Your task to perform on an android device: check android version Image 0: 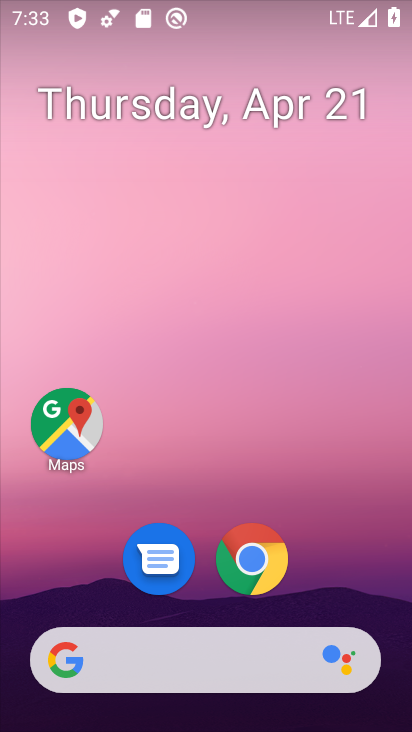
Step 0: drag from (337, 545) to (328, 229)
Your task to perform on an android device: check android version Image 1: 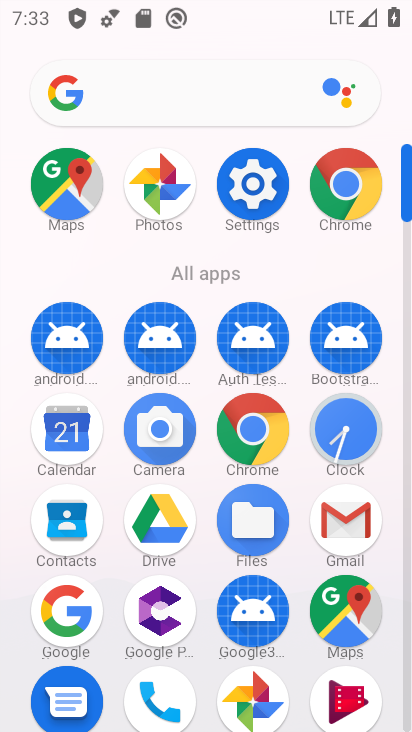
Step 1: click (261, 207)
Your task to perform on an android device: check android version Image 2: 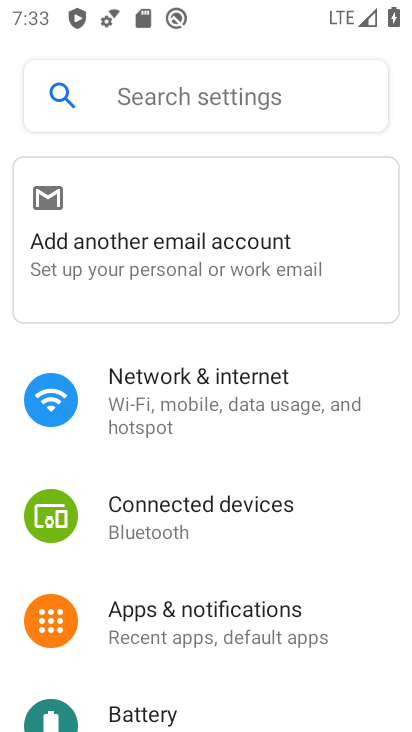
Step 2: drag from (305, 550) to (297, 271)
Your task to perform on an android device: check android version Image 3: 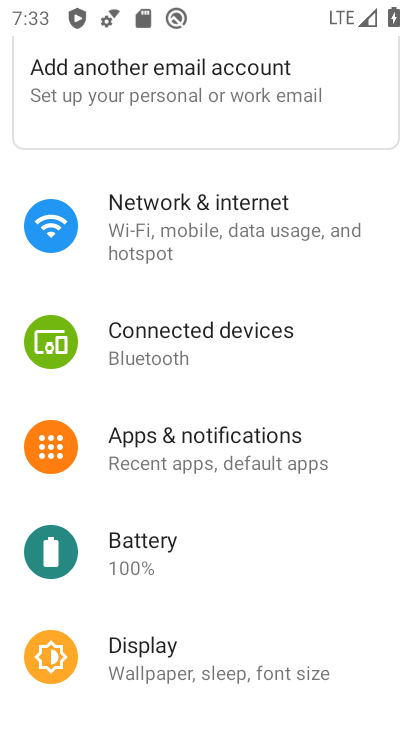
Step 3: drag from (294, 657) to (294, 287)
Your task to perform on an android device: check android version Image 4: 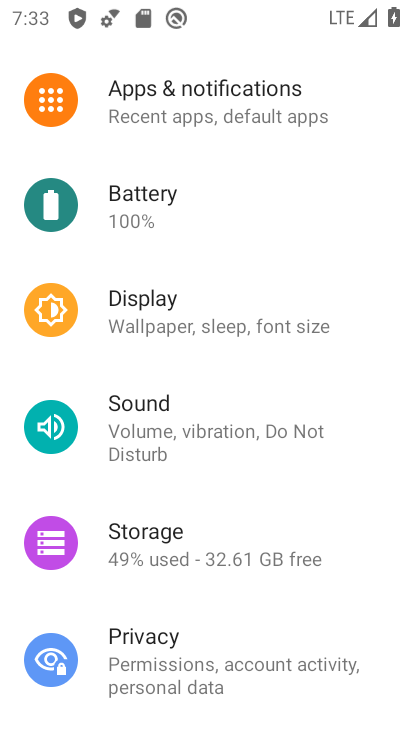
Step 4: drag from (264, 612) to (285, 258)
Your task to perform on an android device: check android version Image 5: 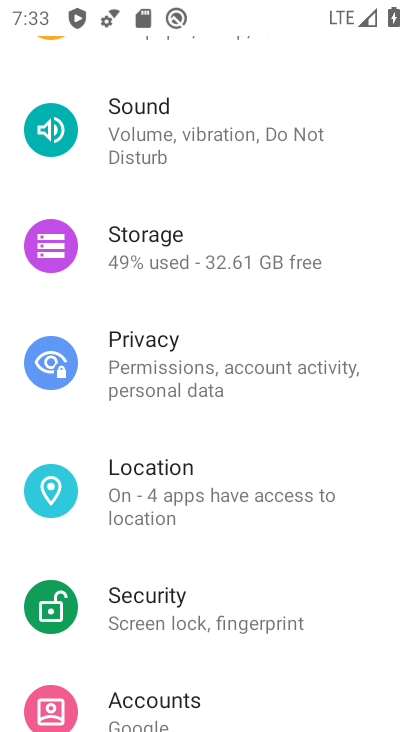
Step 5: drag from (269, 561) to (329, 206)
Your task to perform on an android device: check android version Image 6: 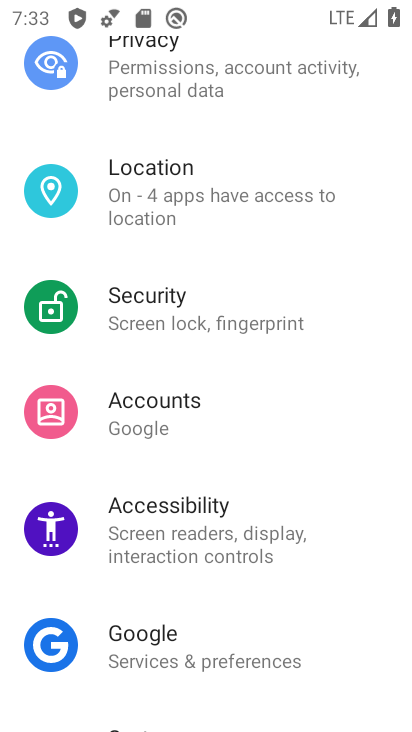
Step 6: drag from (316, 606) to (365, 209)
Your task to perform on an android device: check android version Image 7: 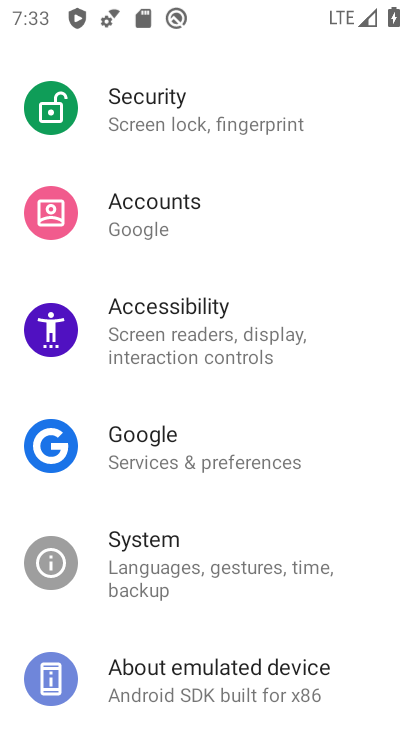
Step 7: drag from (355, 630) to (350, 251)
Your task to perform on an android device: check android version Image 8: 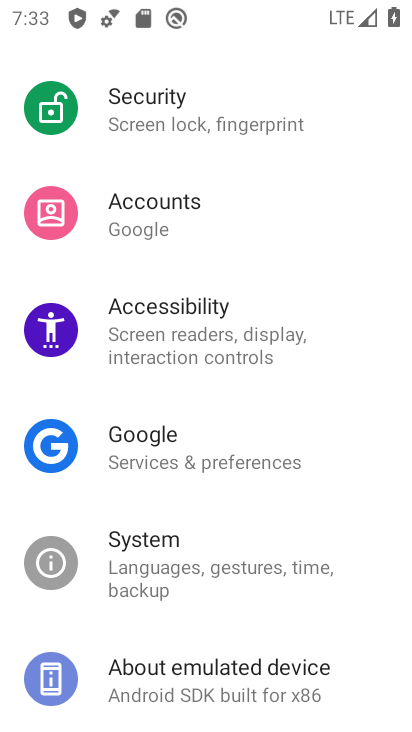
Step 8: click (270, 668)
Your task to perform on an android device: check android version Image 9: 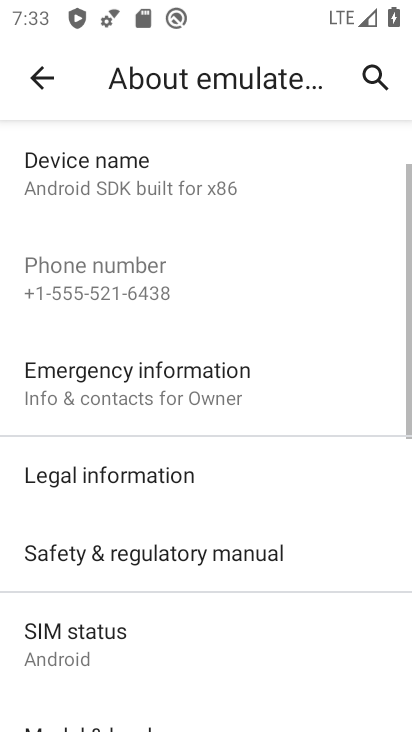
Step 9: drag from (209, 655) to (321, 187)
Your task to perform on an android device: check android version Image 10: 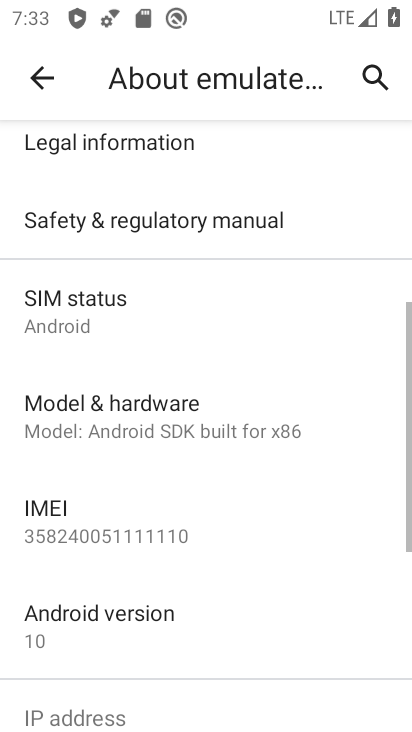
Step 10: click (142, 637)
Your task to perform on an android device: check android version Image 11: 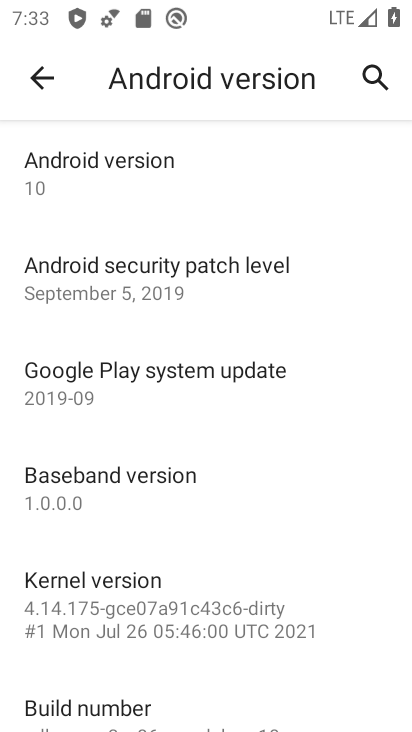
Step 11: task complete